Your task to perform on an android device: Go to CNN.com Image 0: 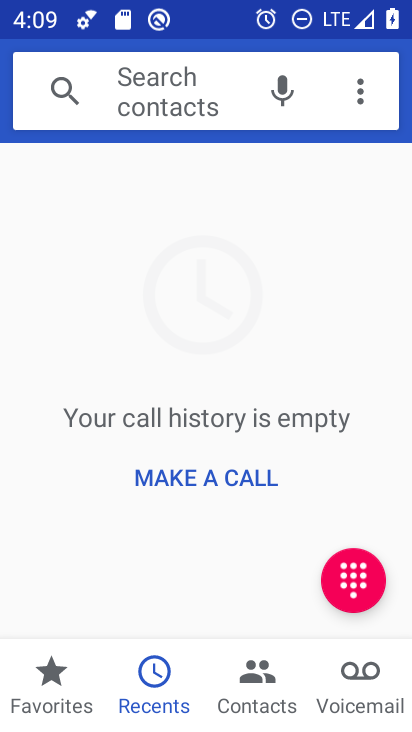
Step 0: press home button
Your task to perform on an android device: Go to CNN.com Image 1: 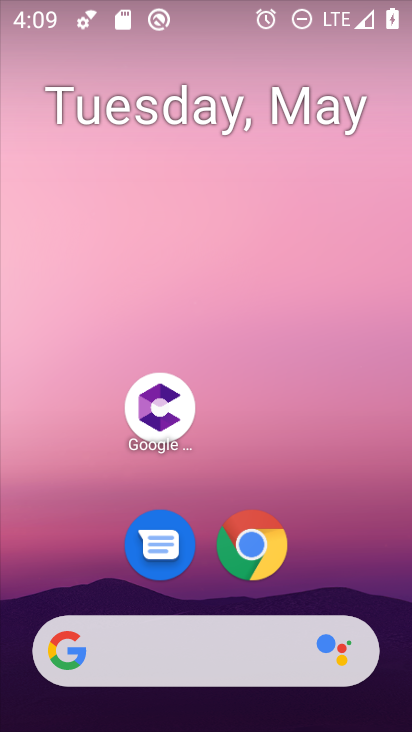
Step 1: drag from (348, 602) to (357, 182)
Your task to perform on an android device: Go to CNN.com Image 2: 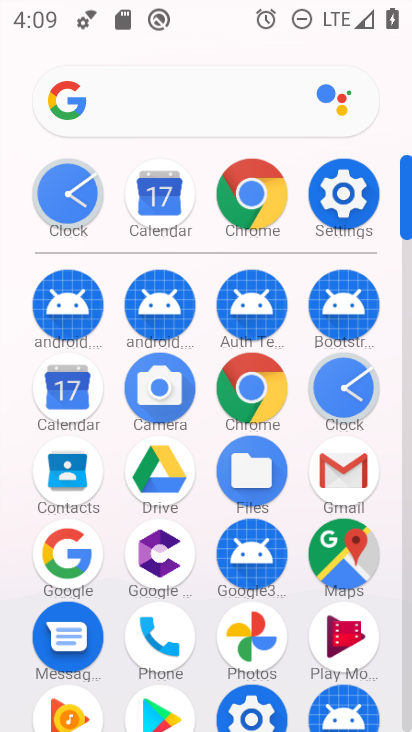
Step 2: click (274, 399)
Your task to perform on an android device: Go to CNN.com Image 3: 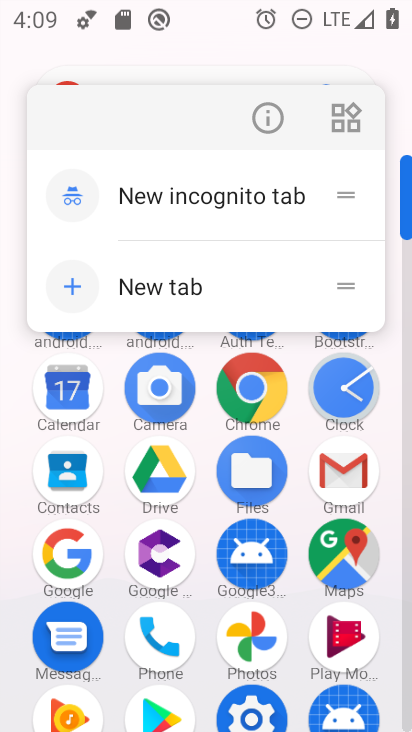
Step 3: click (256, 406)
Your task to perform on an android device: Go to CNN.com Image 4: 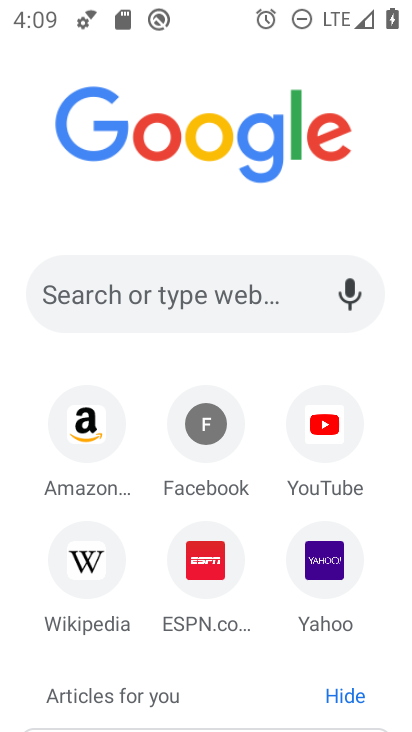
Step 4: click (223, 300)
Your task to perform on an android device: Go to CNN.com Image 5: 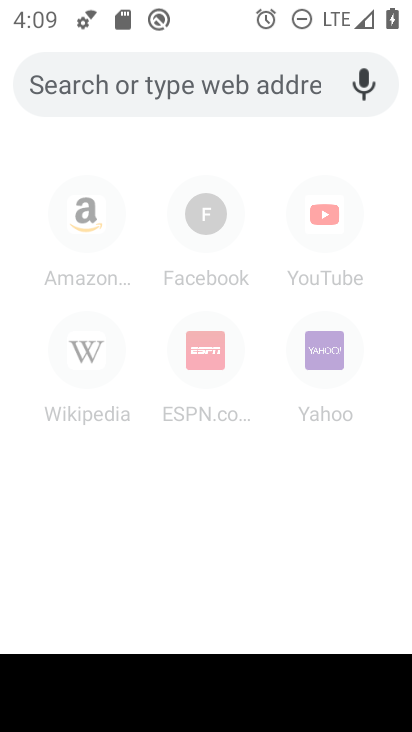
Step 5: type "cnn.com"
Your task to perform on an android device: Go to CNN.com Image 6: 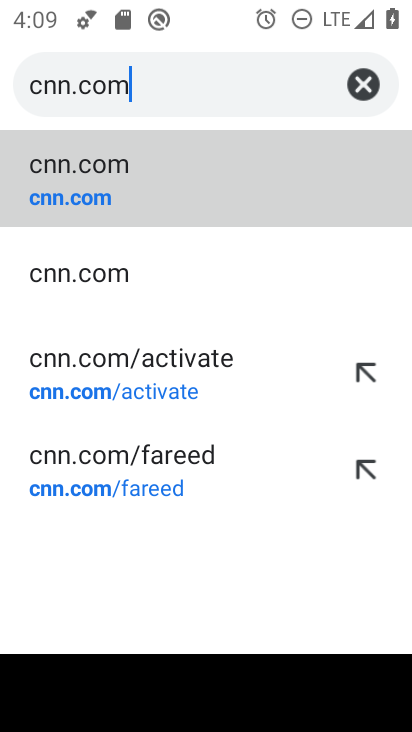
Step 6: click (149, 174)
Your task to perform on an android device: Go to CNN.com Image 7: 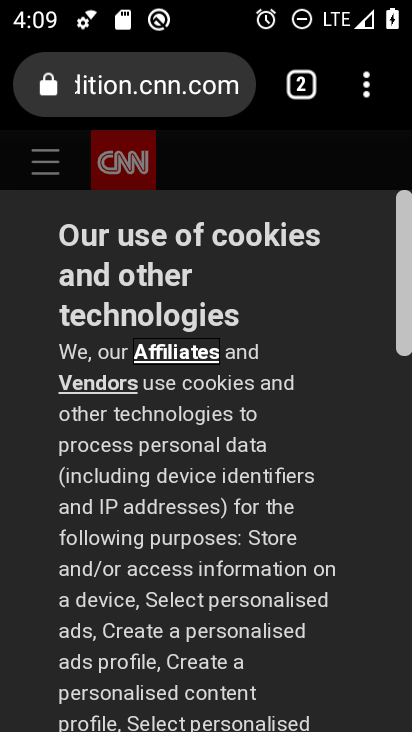
Step 7: task complete